Your task to perform on an android device: star an email in the gmail app Image 0: 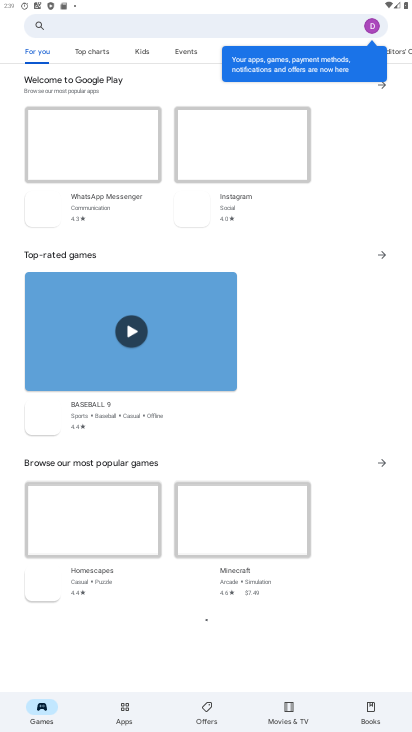
Step 0: press home button
Your task to perform on an android device: star an email in the gmail app Image 1: 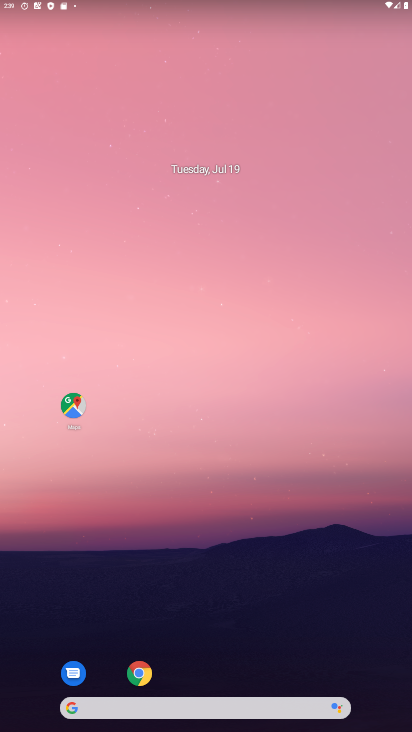
Step 1: drag from (194, 513) to (199, 0)
Your task to perform on an android device: star an email in the gmail app Image 2: 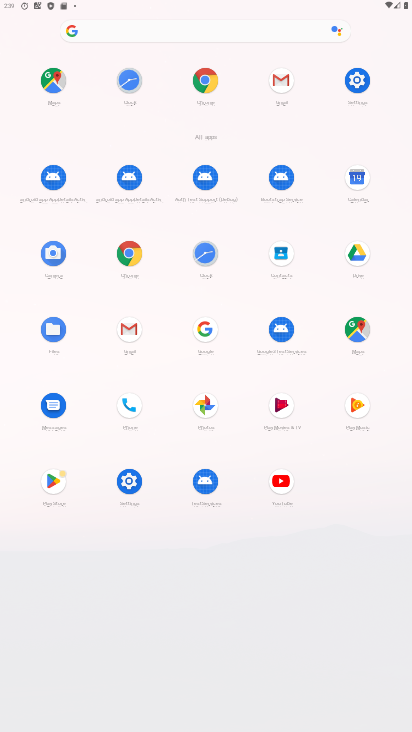
Step 2: click (123, 330)
Your task to perform on an android device: star an email in the gmail app Image 3: 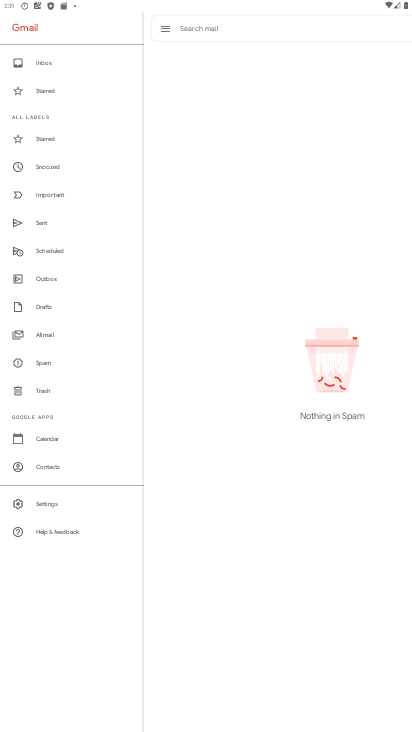
Step 3: click (51, 64)
Your task to perform on an android device: star an email in the gmail app Image 4: 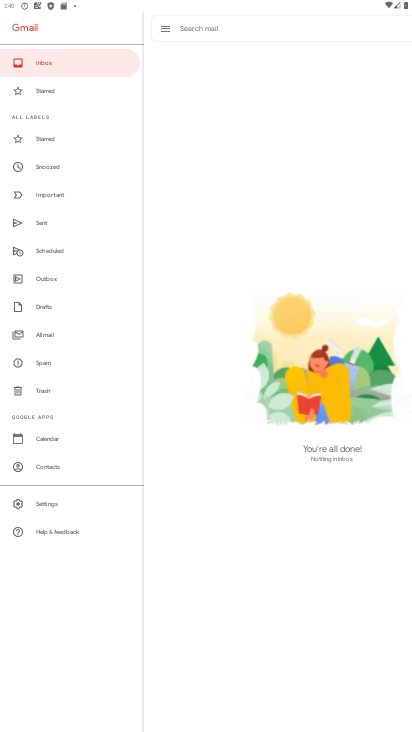
Step 4: task complete